Your task to perform on an android device: toggle improve location accuracy Image 0: 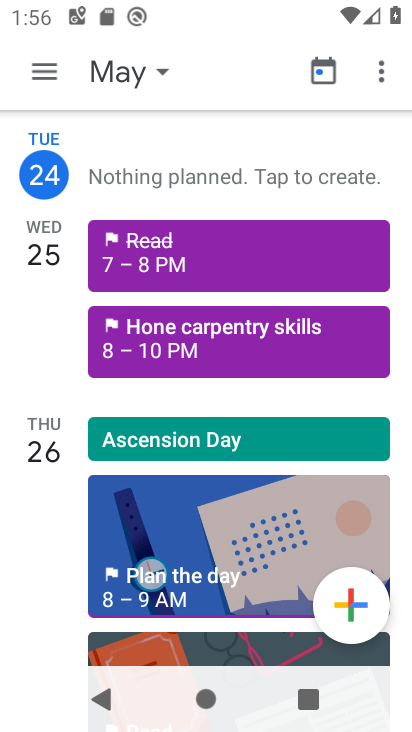
Step 0: press home button
Your task to perform on an android device: toggle improve location accuracy Image 1: 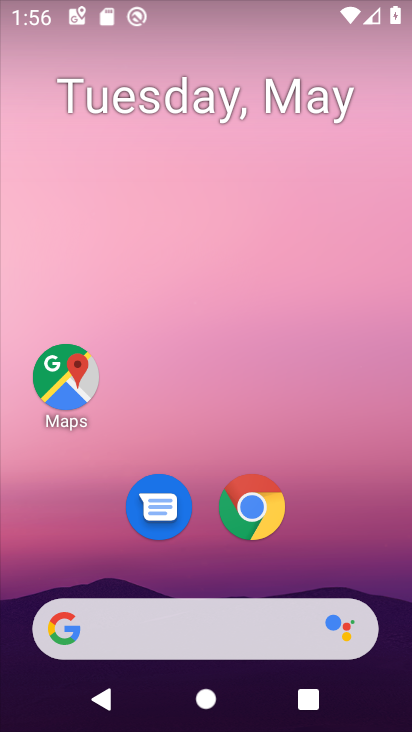
Step 1: drag from (191, 566) to (174, 150)
Your task to perform on an android device: toggle improve location accuracy Image 2: 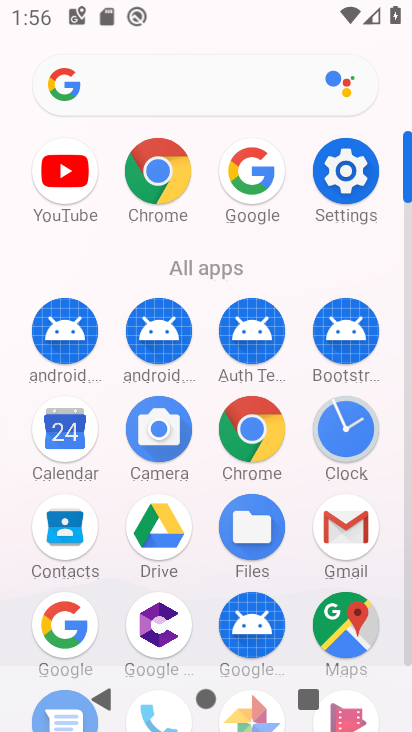
Step 2: click (318, 174)
Your task to perform on an android device: toggle improve location accuracy Image 3: 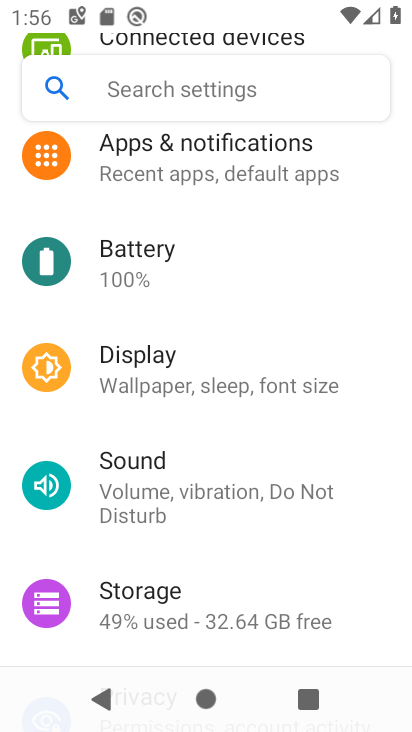
Step 3: drag from (205, 544) to (222, 260)
Your task to perform on an android device: toggle improve location accuracy Image 4: 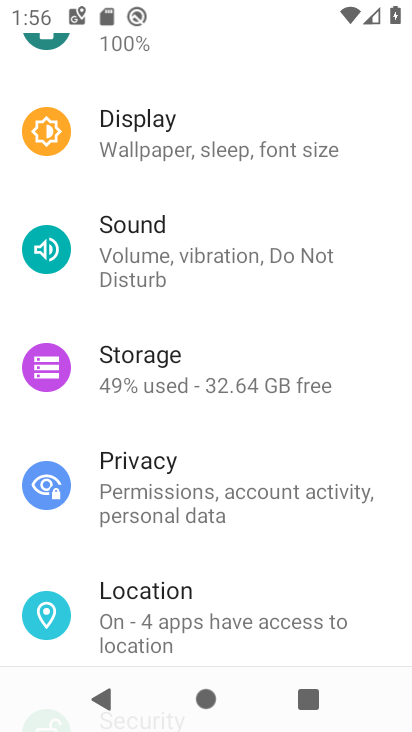
Step 4: click (201, 599)
Your task to perform on an android device: toggle improve location accuracy Image 5: 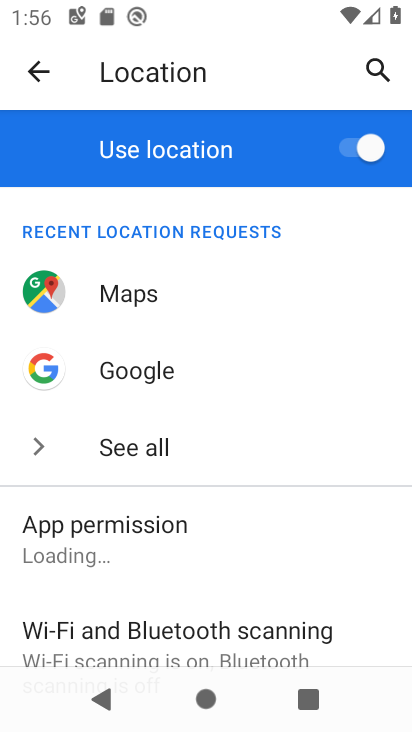
Step 5: drag from (193, 626) to (205, 337)
Your task to perform on an android device: toggle improve location accuracy Image 6: 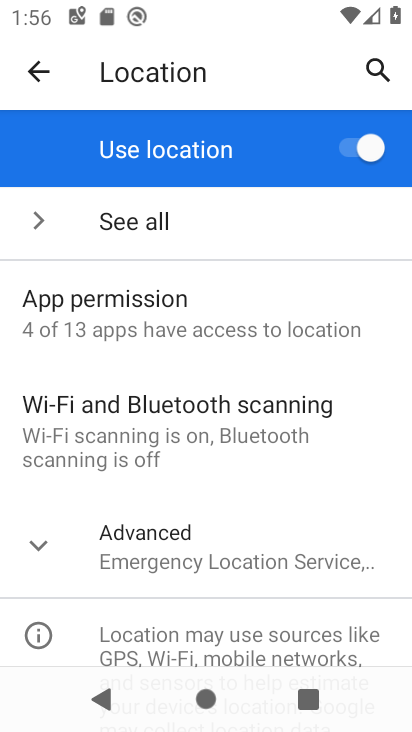
Step 6: click (209, 544)
Your task to perform on an android device: toggle improve location accuracy Image 7: 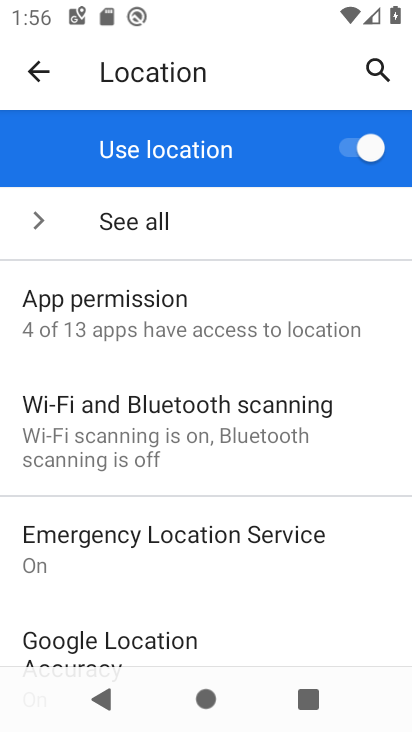
Step 7: drag from (226, 562) to (230, 328)
Your task to perform on an android device: toggle improve location accuracy Image 8: 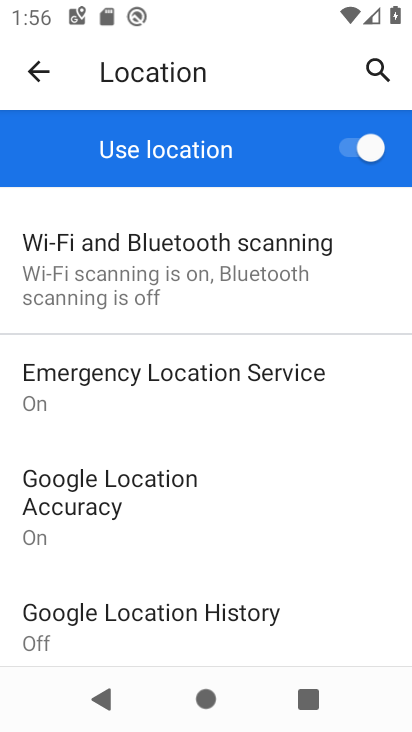
Step 8: drag from (239, 574) to (243, 405)
Your task to perform on an android device: toggle improve location accuracy Image 9: 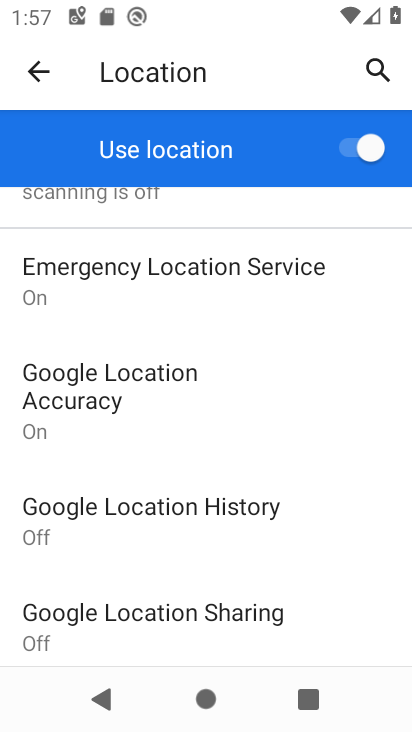
Step 9: drag from (236, 584) to (236, 494)
Your task to perform on an android device: toggle improve location accuracy Image 10: 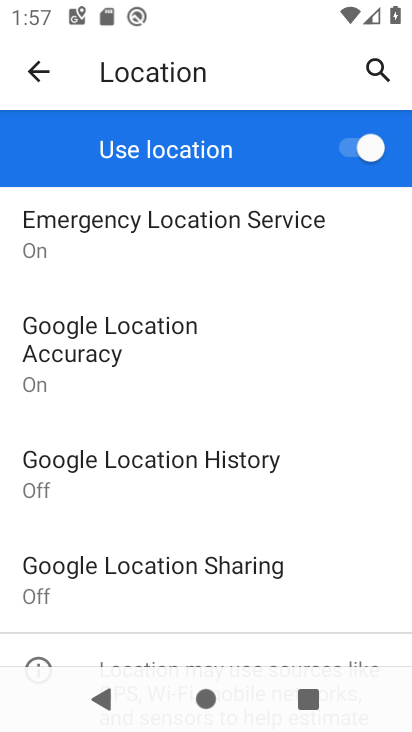
Step 10: drag from (236, 552) to (237, 404)
Your task to perform on an android device: toggle improve location accuracy Image 11: 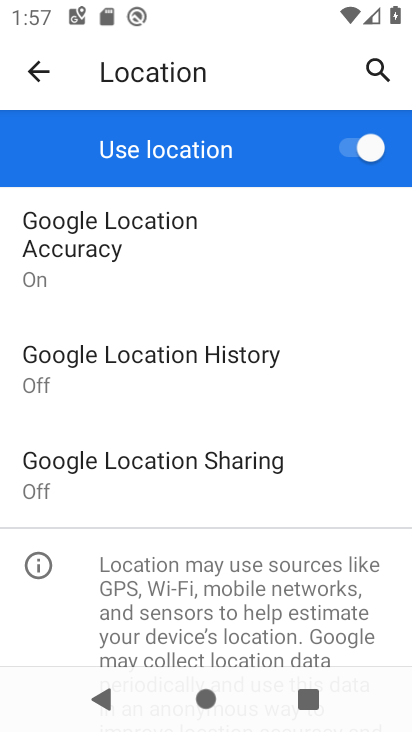
Step 11: click (139, 216)
Your task to perform on an android device: toggle improve location accuracy Image 12: 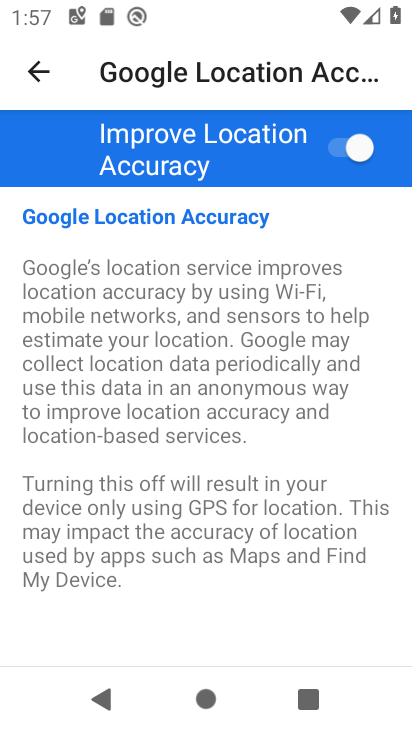
Step 12: click (332, 149)
Your task to perform on an android device: toggle improve location accuracy Image 13: 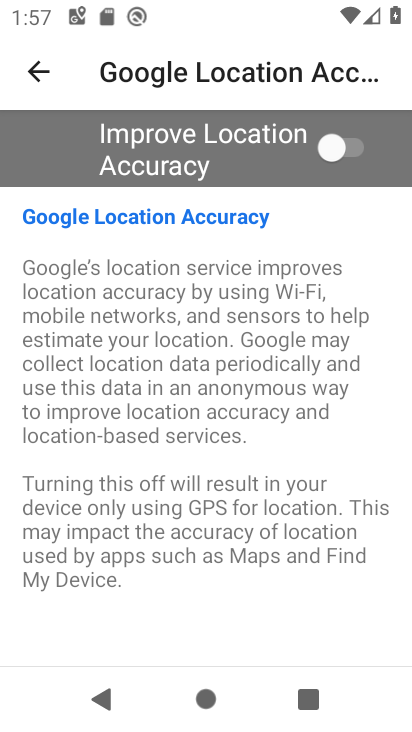
Step 13: task complete